Your task to perform on an android device: Open eBay Image 0: 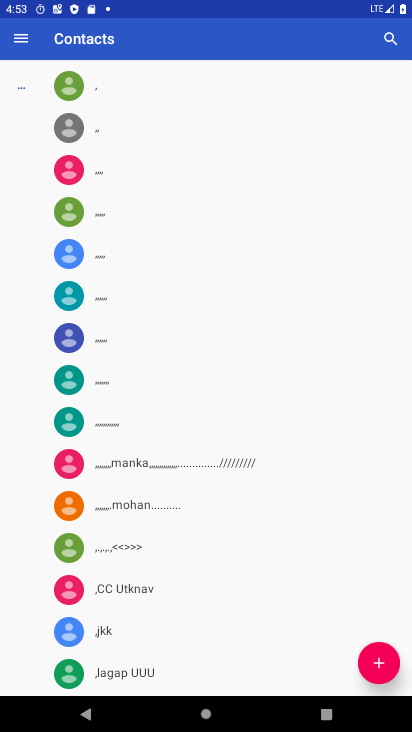
Step 0: press home button
Your task to perform on an android device: Open eBay Image 1: 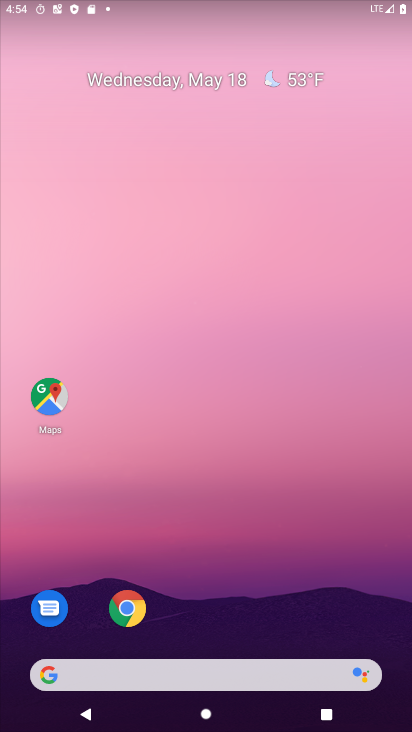
Step 1: drag from (263, 680) to (248, 2)
Your task to perform on an android device: Open eBay Image 2: 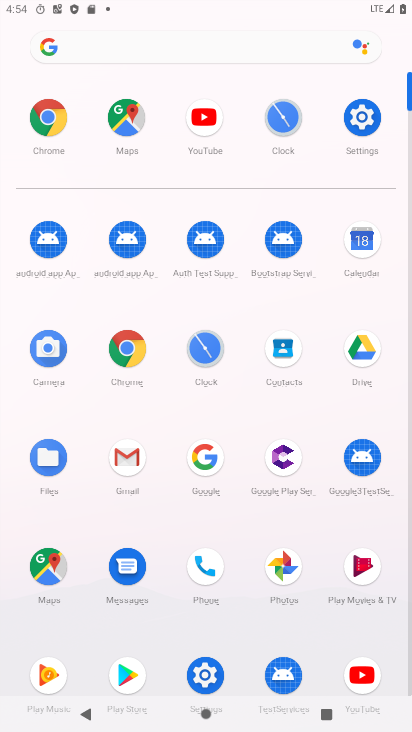
Step 2: click (126, 342)
Your task to perform on an android device: Open eBay Image 3: 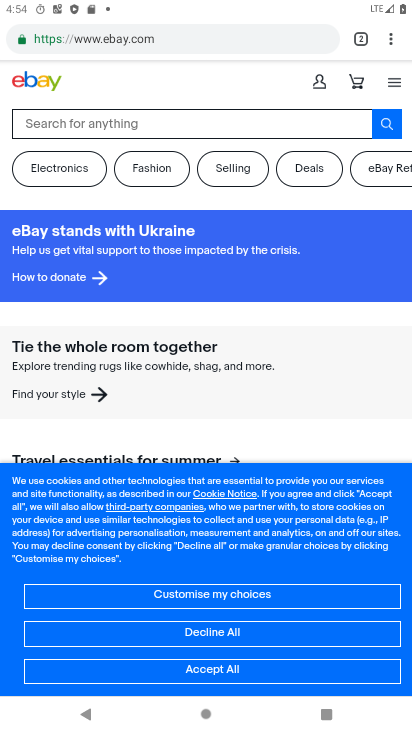
Step 3: task complete